Your task to perform on an android device: turn on data saver in the chrome app Image 0: 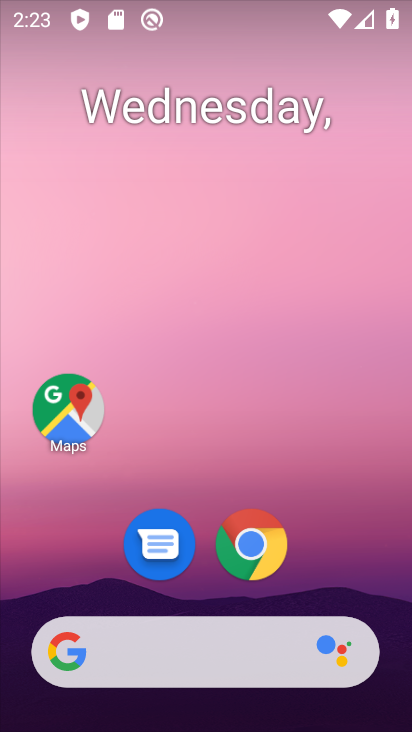
Step 0: click (251, 558)
Your task to perform on an android device: turn on data saver in the chrome app Image 1: 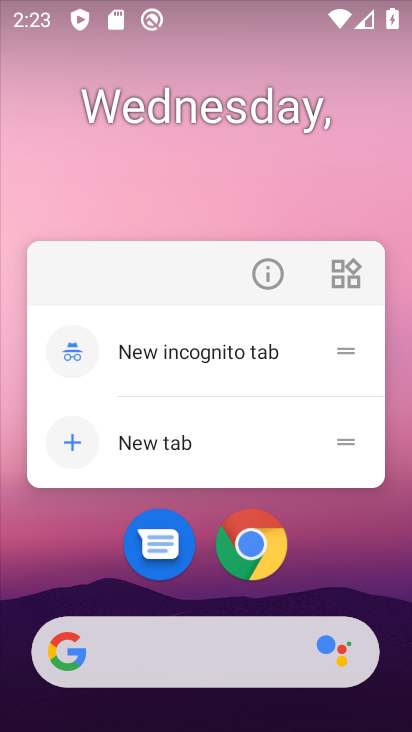
Step 1: click (263, 562)
Your task to perform on an android device: turn on data saver in the chrome app Image 2: 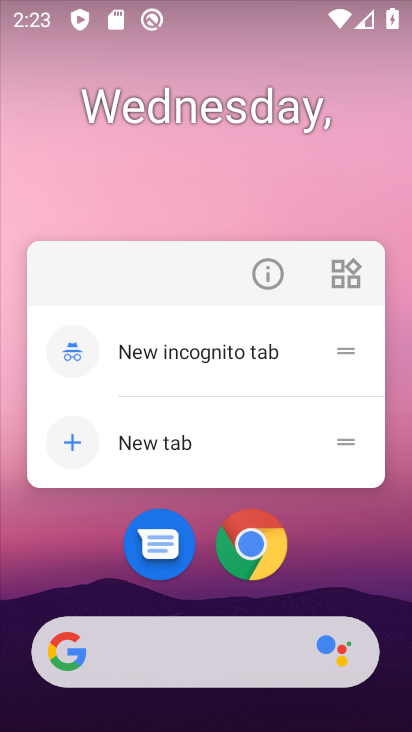
Step 2: click (258, 560)
Your task to perform on an android device: turn on data saver in the chrome app Image 3: 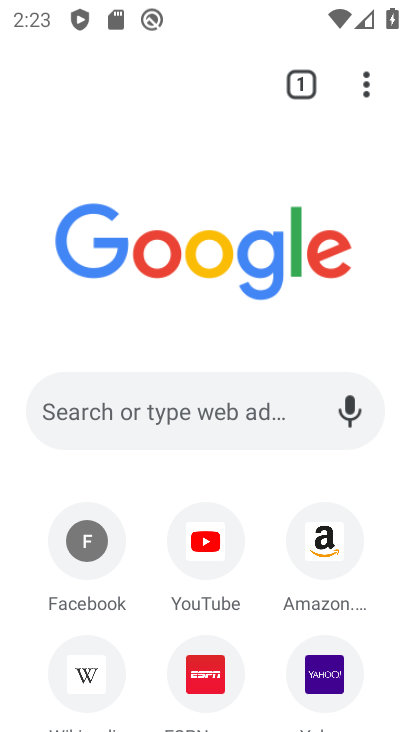
Step 3: drag from (367, 87) to (247, 607)
Your task to perform on an android device: turn on data saver in the chrome app Image 4: 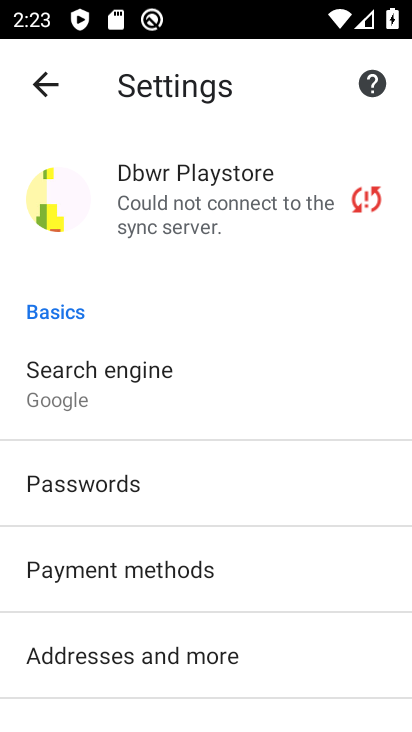
Step 4: drag from (193, 649) to (314, 299)
Your task to perform on an android device: turn on data saver in the chrome app Image 5: 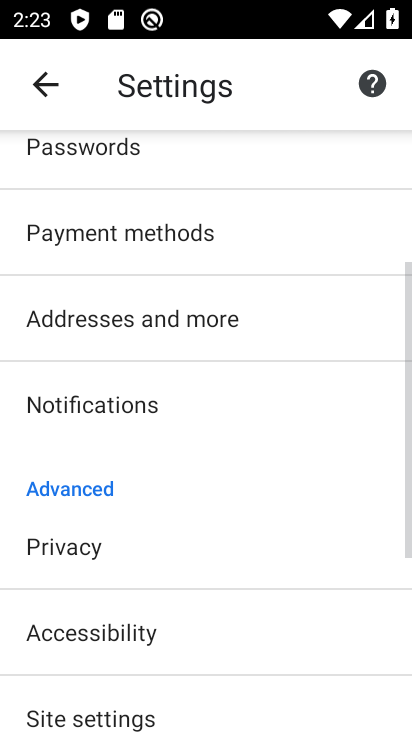
Step 5: drag from (189, 616) to (277, 321)
Your task to perform on an android device: turn on data saver in the chrome app Image 6: 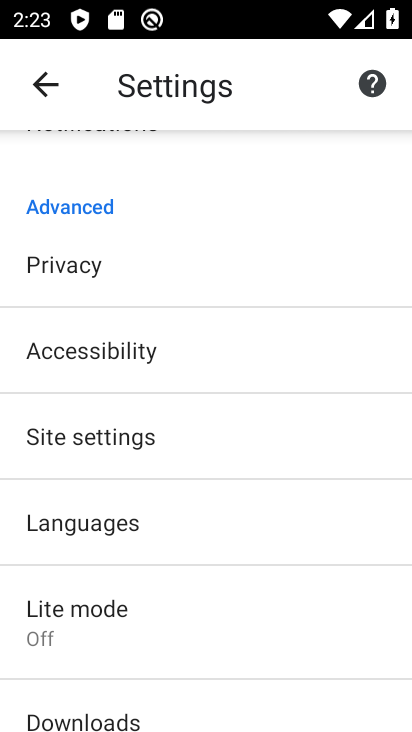
Step 6: drag from (190, 656) to (284, 332)
Your task to perform on an android device: turn on data saver in the chrome app Image 7: 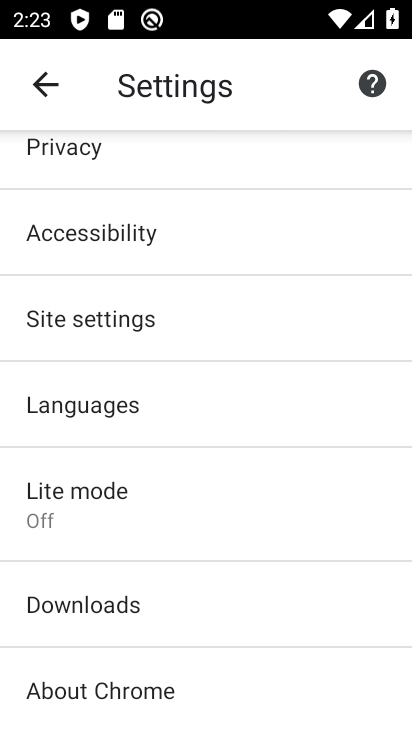
Step 7: click (179, 488)
Your task to perform on an android device: turn on data saver in the chrome app Image 8: 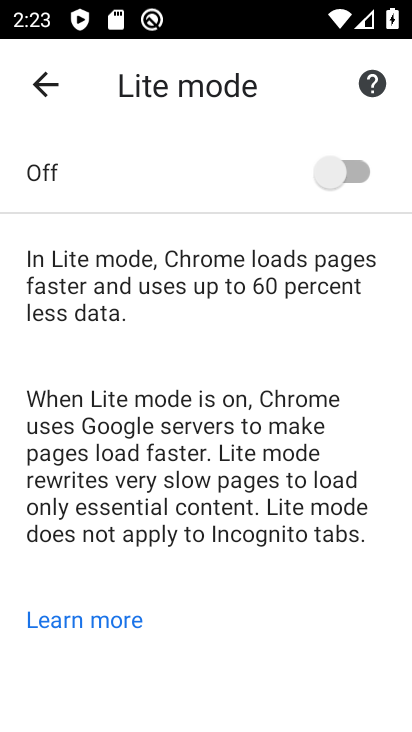
Step 8: click (374, 163)
Your task to perform on an android device: turn on data saver in the chrome app Image 9: 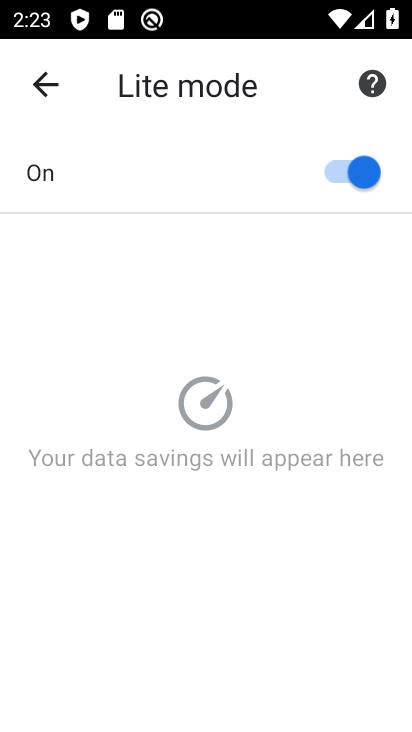
Step 9: task complete